Your task to perform on an android device: toggle sleep mode Image 0: 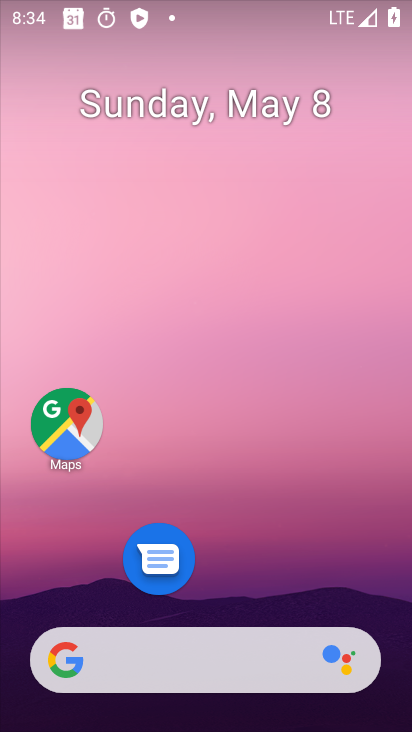
Step 0: drag from (305, 659) to (304, 37)
Your task to perform on an android device: toggle sleep mode Image 1: 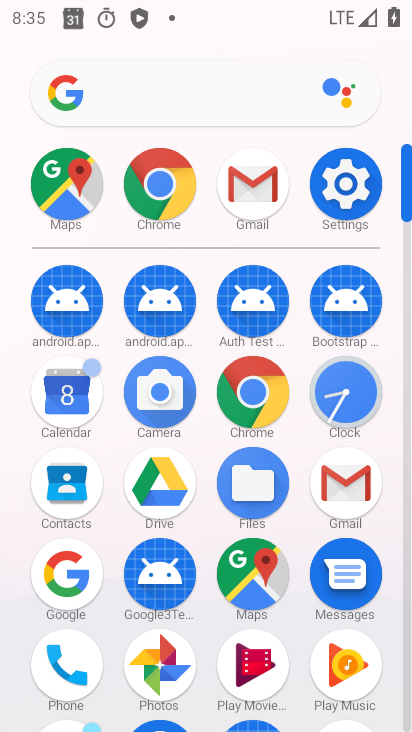
Step 1: click (347, 183)
Your task to perform on an android device: toggle sleep mode Image 2: 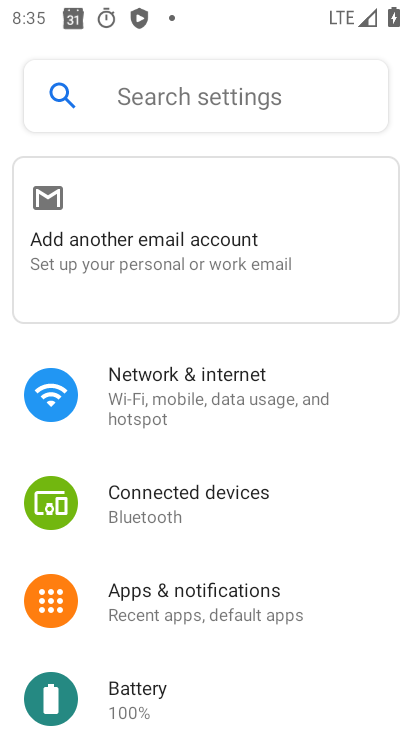
Step 2: drag from (190, 664) to (176, 276)
Your task to perform on an android device: toggle sleep mode Image 3: 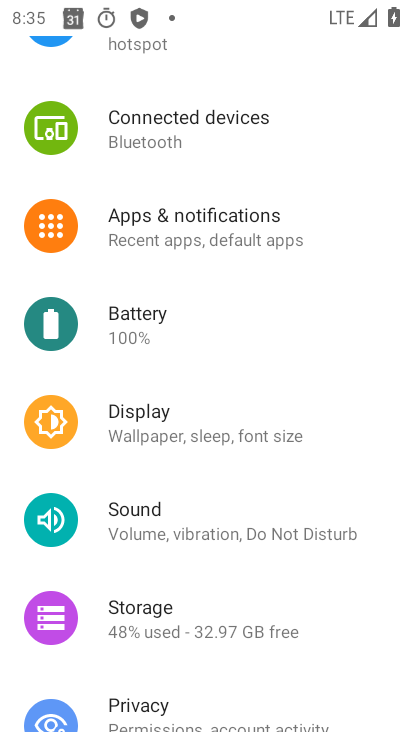
Step 3: click (238, 425)
Your task to perform on an android device: toggle sleep mode Image 4: 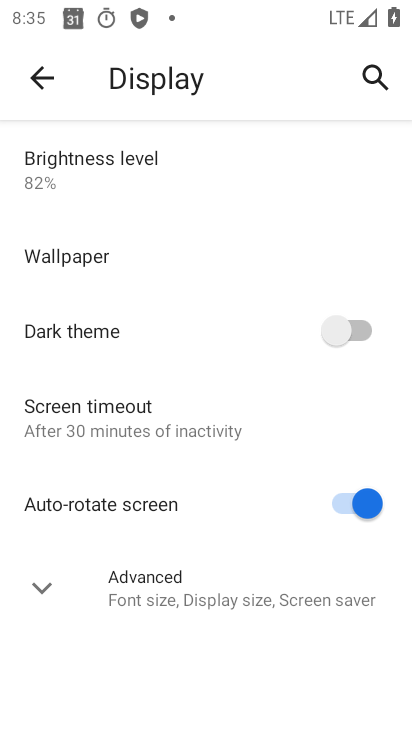
Step 4: task complete